Your task to perform on an android device: Is it going to rain today? Image 0: 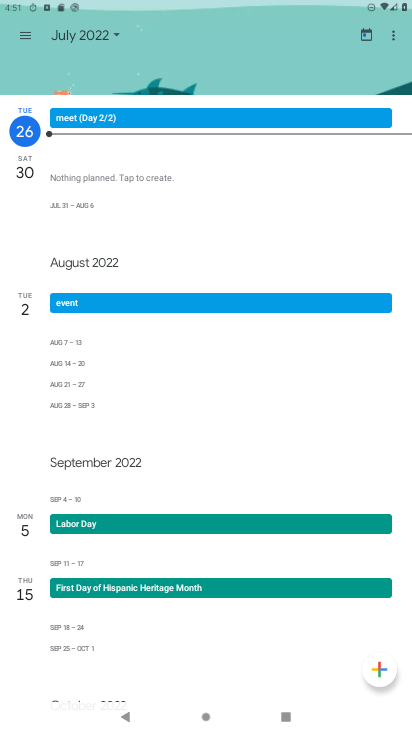
Step 0: press home button
Your task to perform on an android device: Is it going to rain today? Image 1: 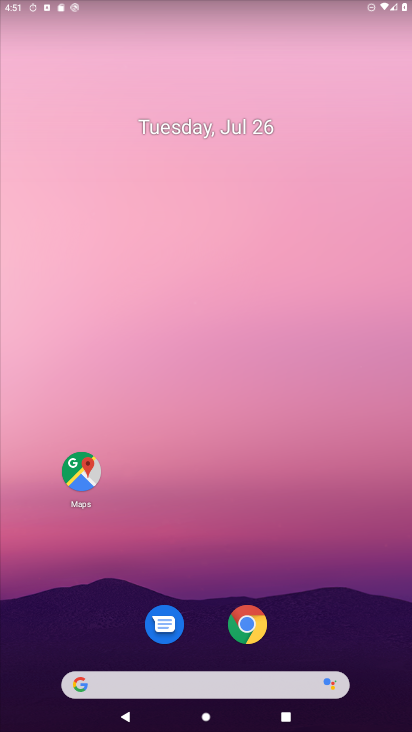
Step 1: drag from (212, 684) to (236, 25)
Your task to perform on an android device: Is it going to rain today? Image 2: 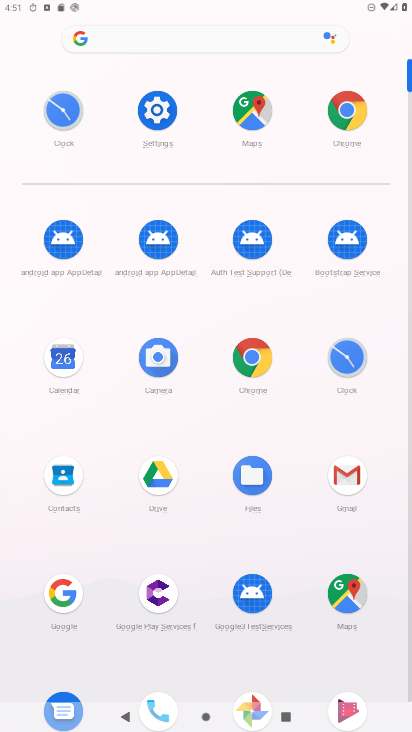
Step 2: click (255, 350)
Your task to perform on an android device: Is it going to rain today? Image 3: 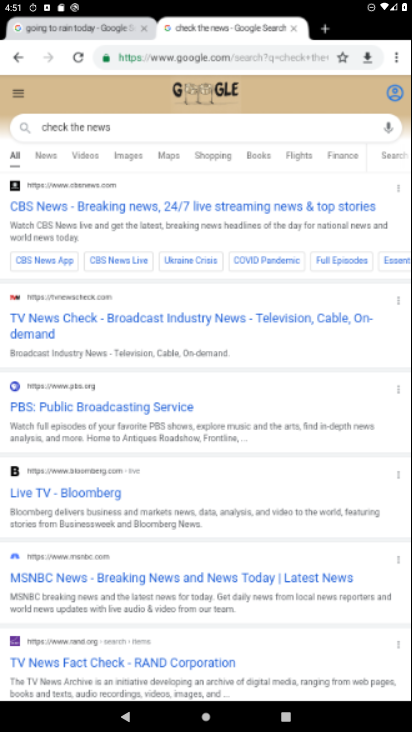
Step 3: click (231, 55)
Your task to perform on an android device: Is it going to rain today? Image 4: 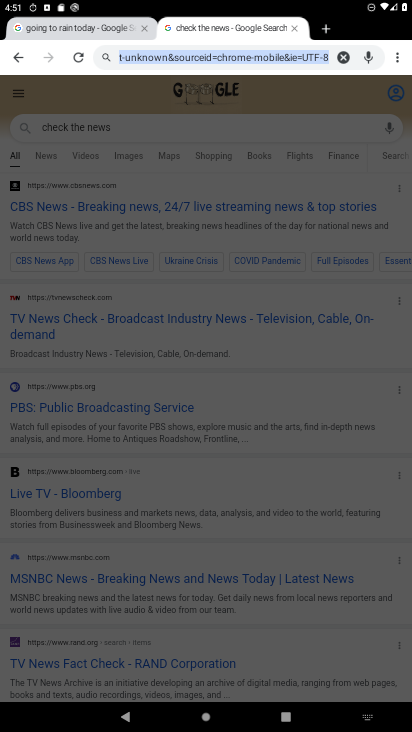
Step 4: type "going to rain today"
Your task to perform on an android device: Is it going to rain today? Image 5: 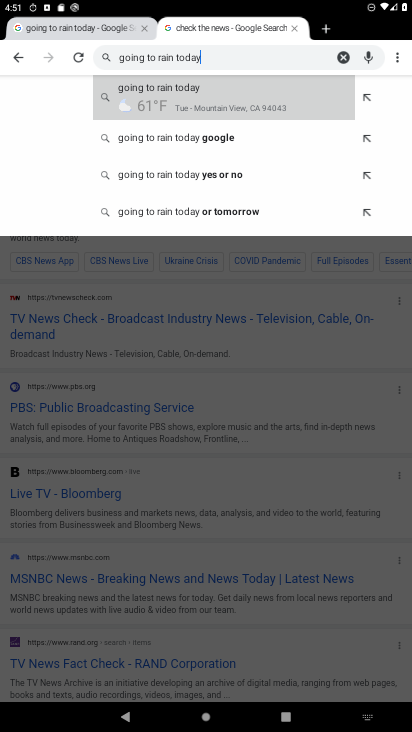
Step 5: click (301, 91)
Your task to perform on an android device: Is it going to rain today? Image 6: 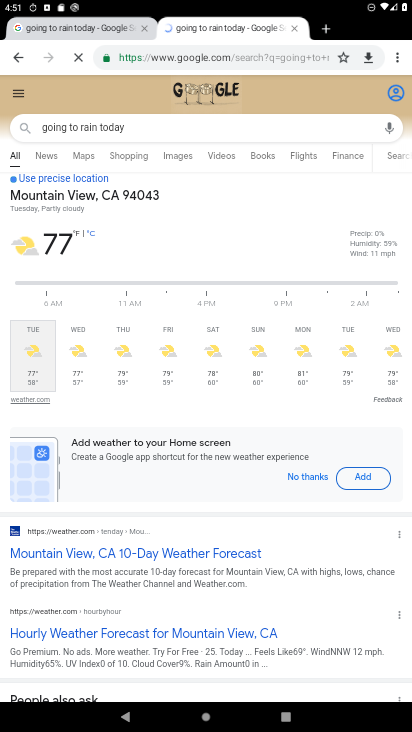
Step 6: task complete